Your task to perform on an android device: Open privacy settings Image 0: 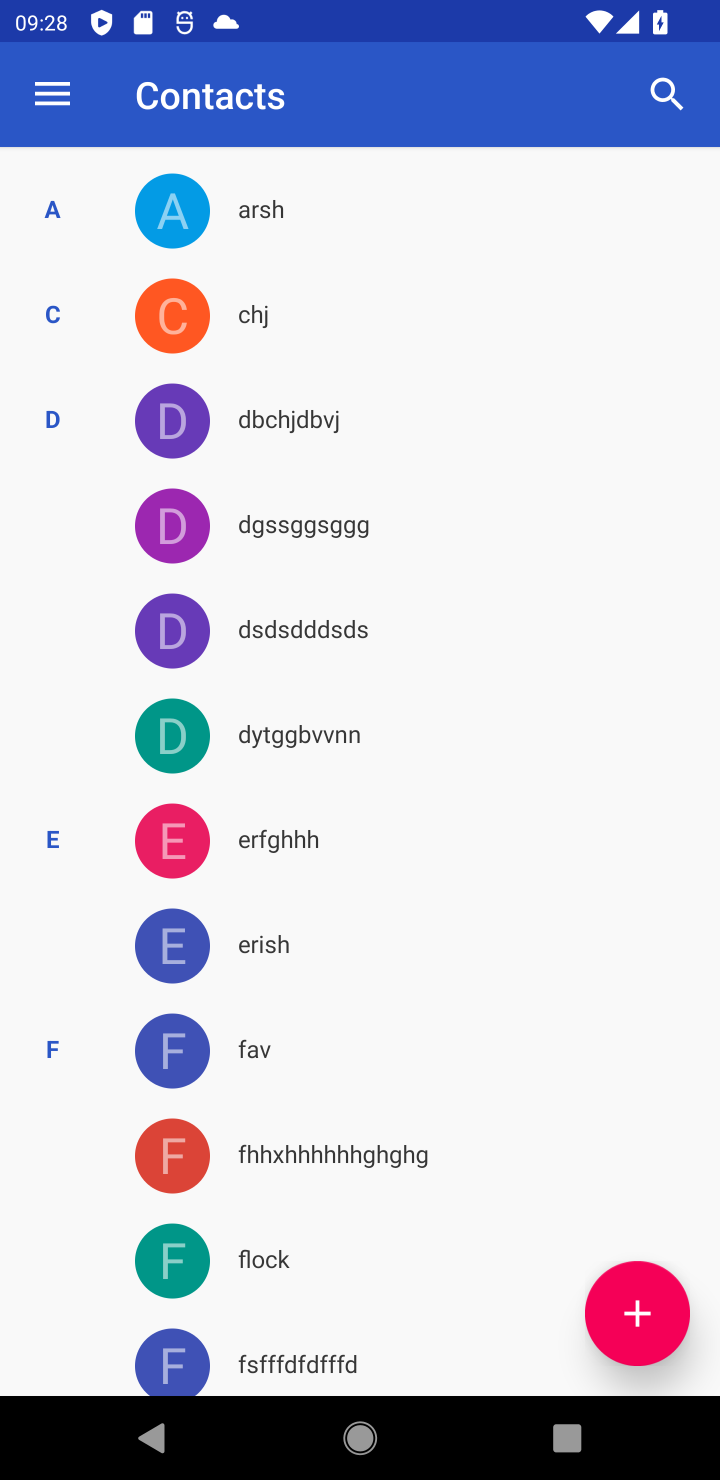
Step 0: press home button
Your task to perform on an android device: Open privacy settings Image 1: 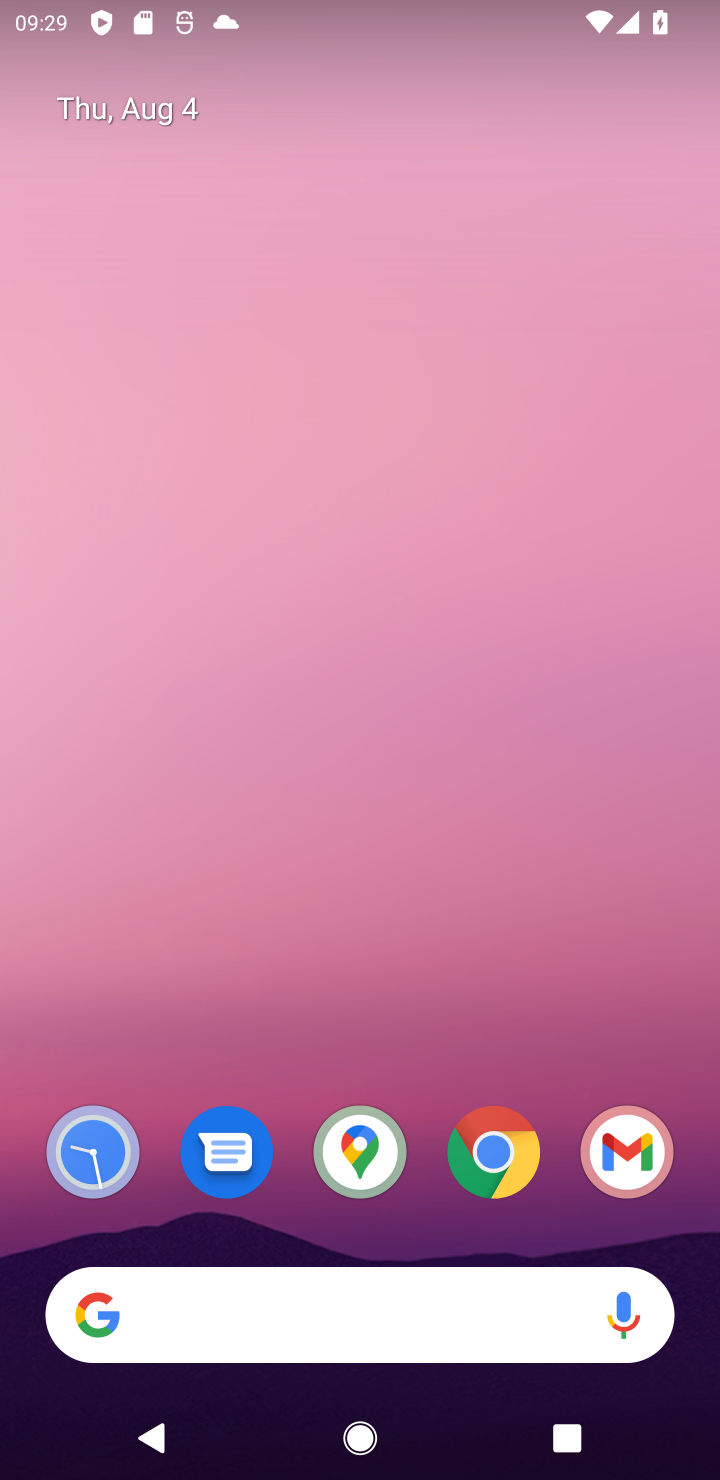
Step 1: drag from (32, 1122) to (365, 31)
Your task to perform on an android device: Open privacy settings Image 2: 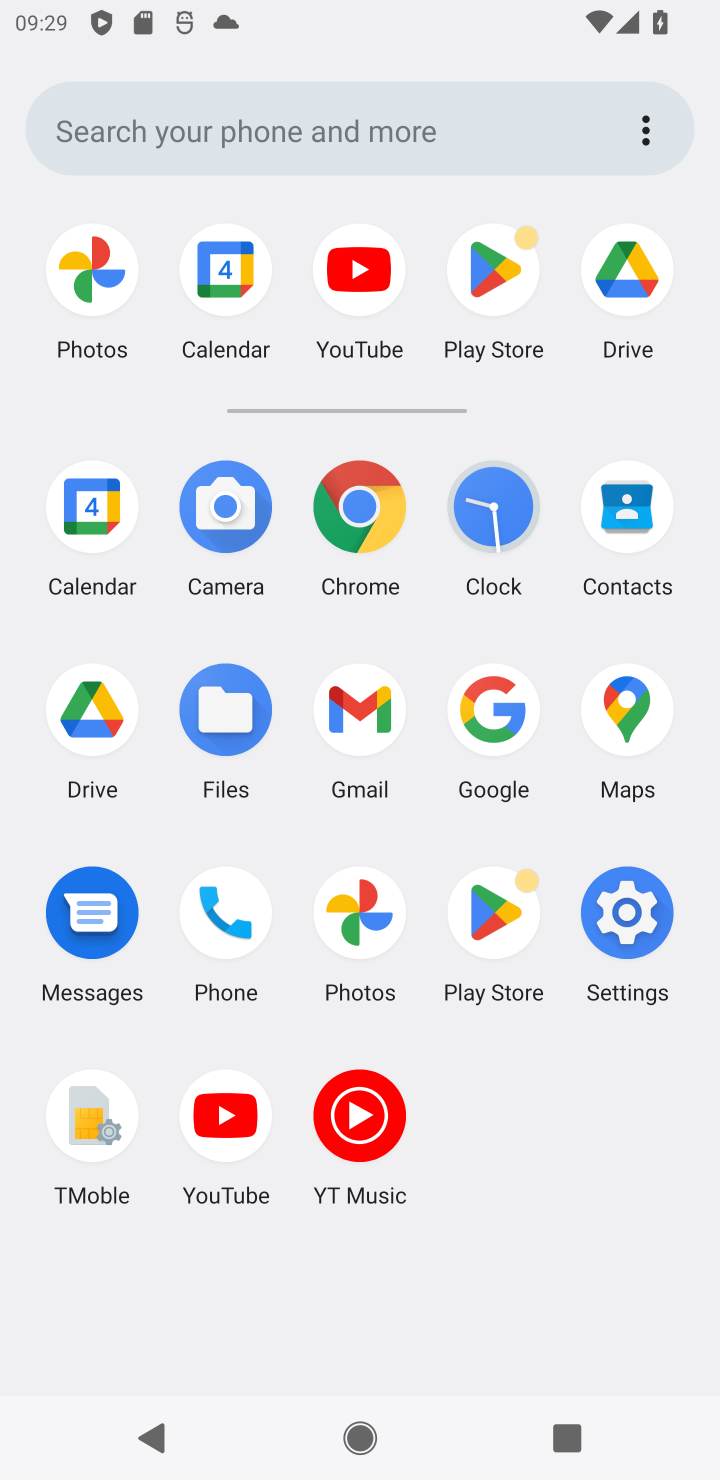
Step 2: click (633, 922)
Your task to perform on an android device: Open privacy settings Image 3: 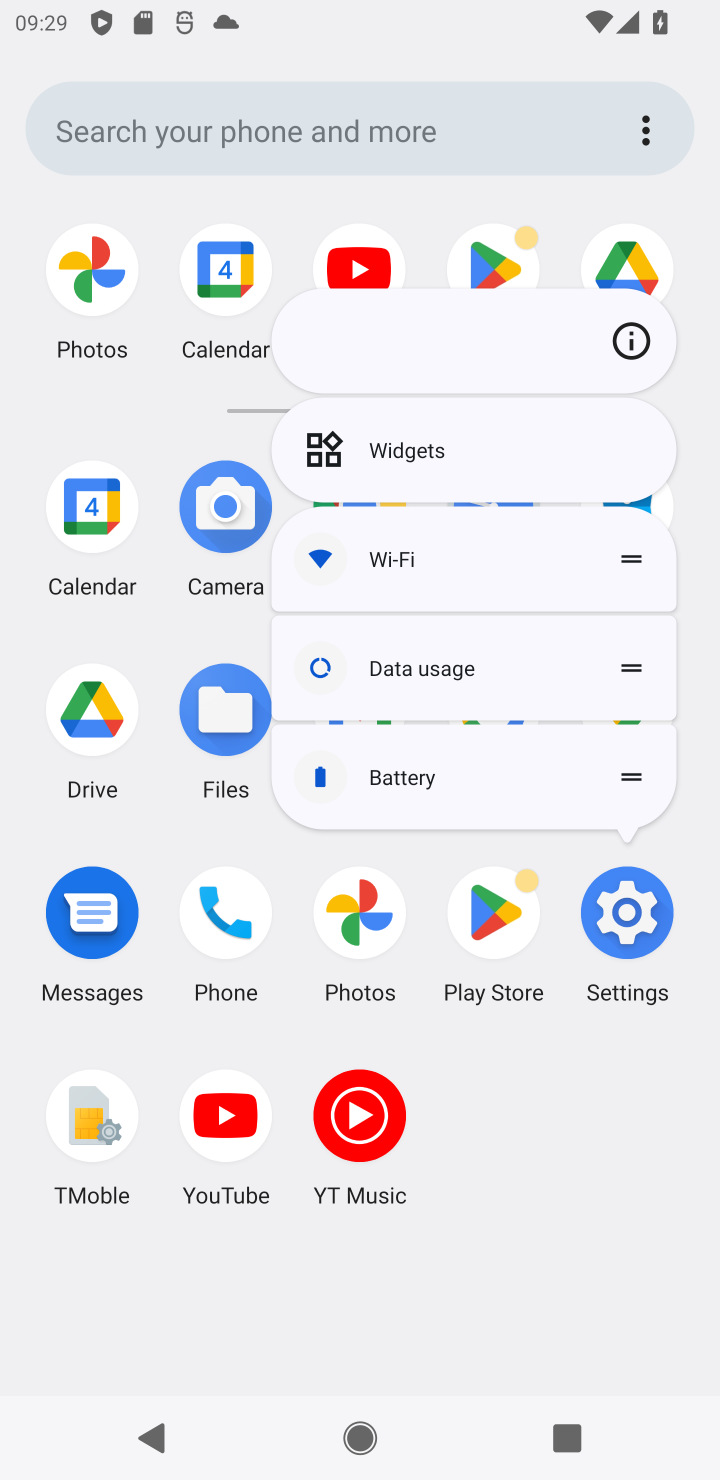
Step 3: click (654, 903)
Your task to perform on an android device: Open privacy settings Image 4: 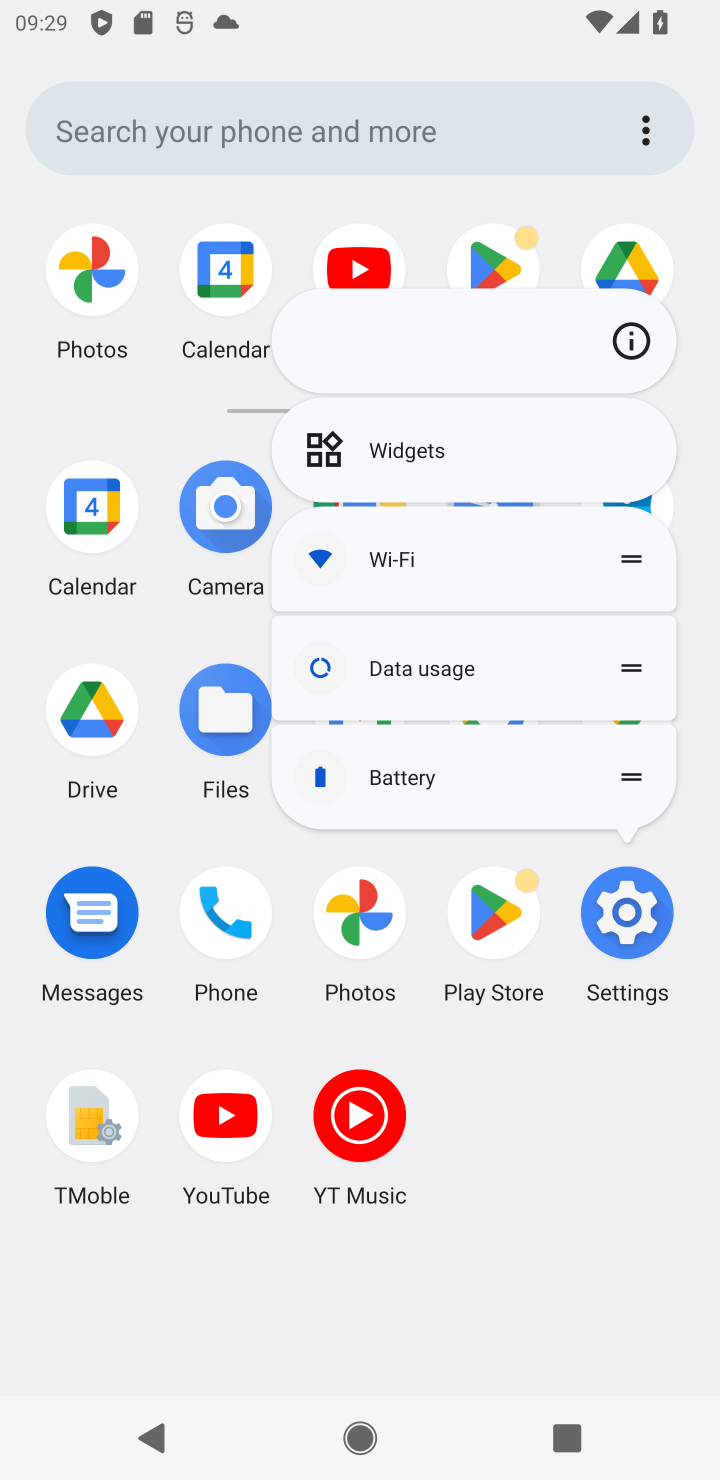
Step 4: click (633, 911)
Your task to perform on an android device: Open privacy settings Image 5: 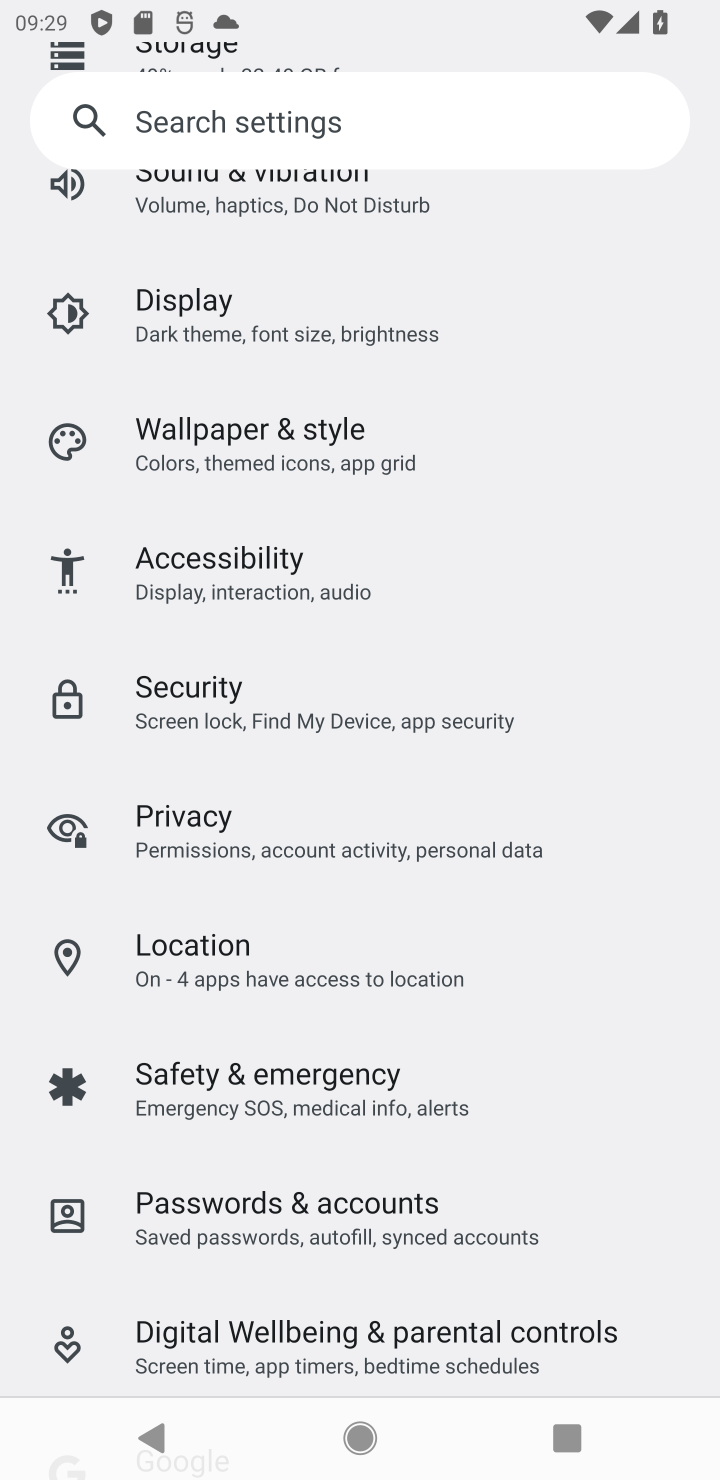
Step 5: task complete